Your task to perform on an android device: toggle pop-ups in chrome Image 0: 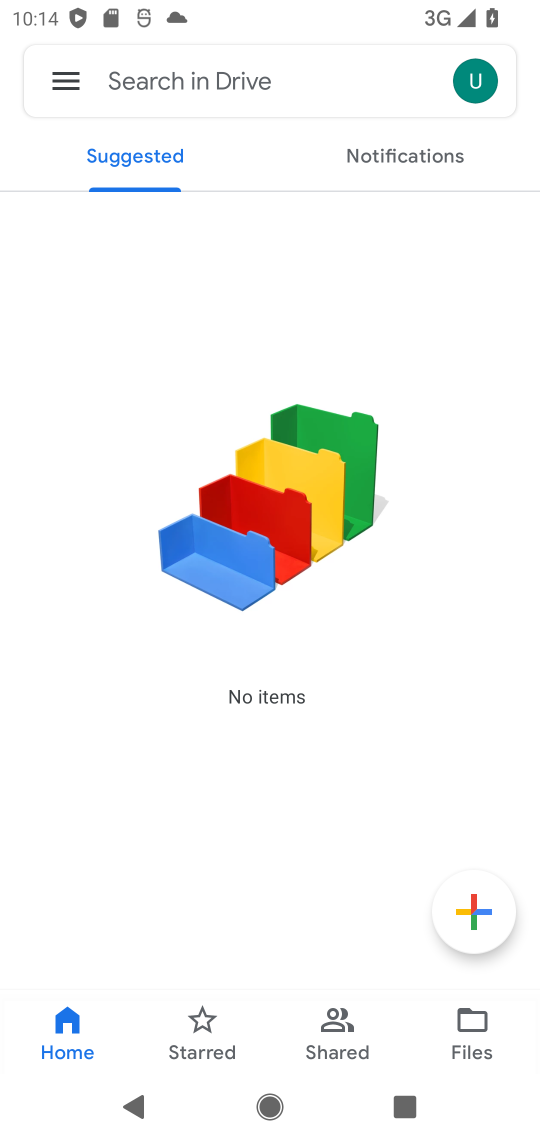
Step 0: press home button
Your task to perform on an android device: toggle pop-ups in chrome Image 1: 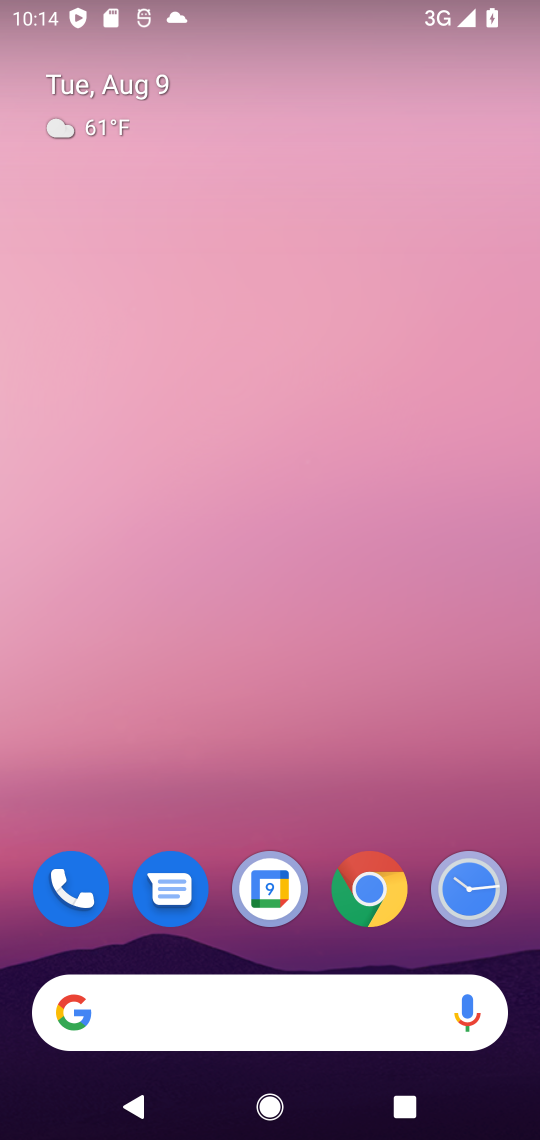
Step 1: drag from (293, 820) to (341, 110)
Your task to perform on an android device: toggle pop-ups in chrome Image 2: 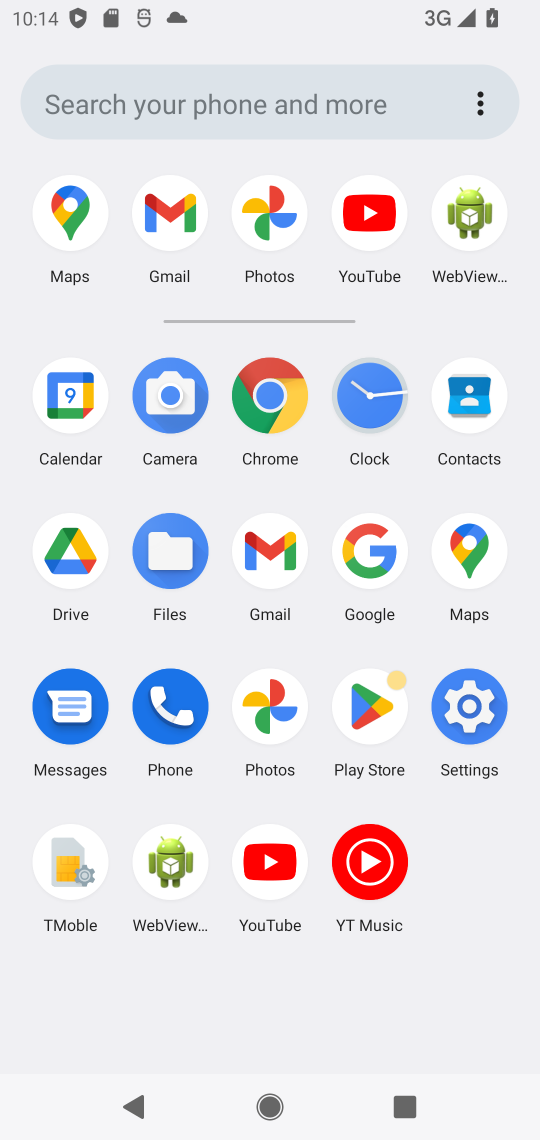
Step 2: click (272, 402)
Your task to perform on an android device: toggle pop-ups in chrome Image 3: 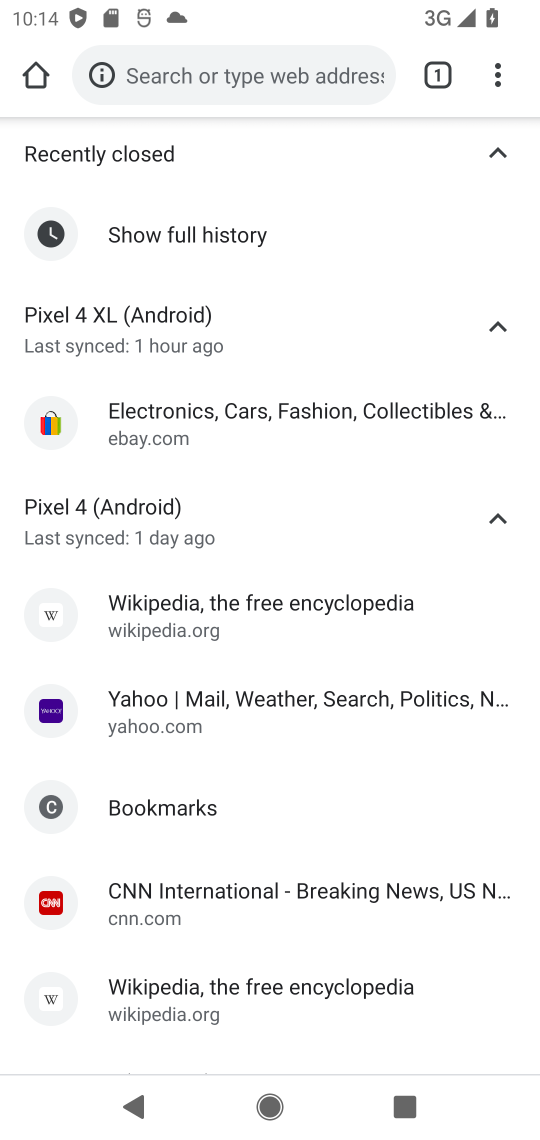
Step 3: drag from (493, 73) to (242, 803)
Your task to perform on an android device: toggle pop-ups in chrome Image 4: 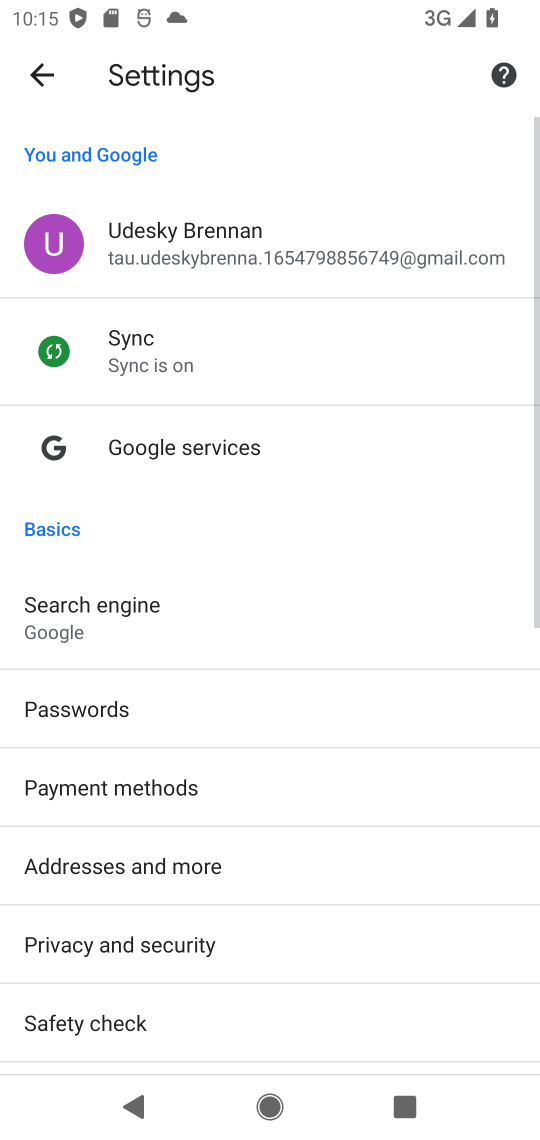
Step 4: drag from (190, 902) to (290, 396)
Your task to perform on an android device: toggle pop-ups in chrome Image 5: 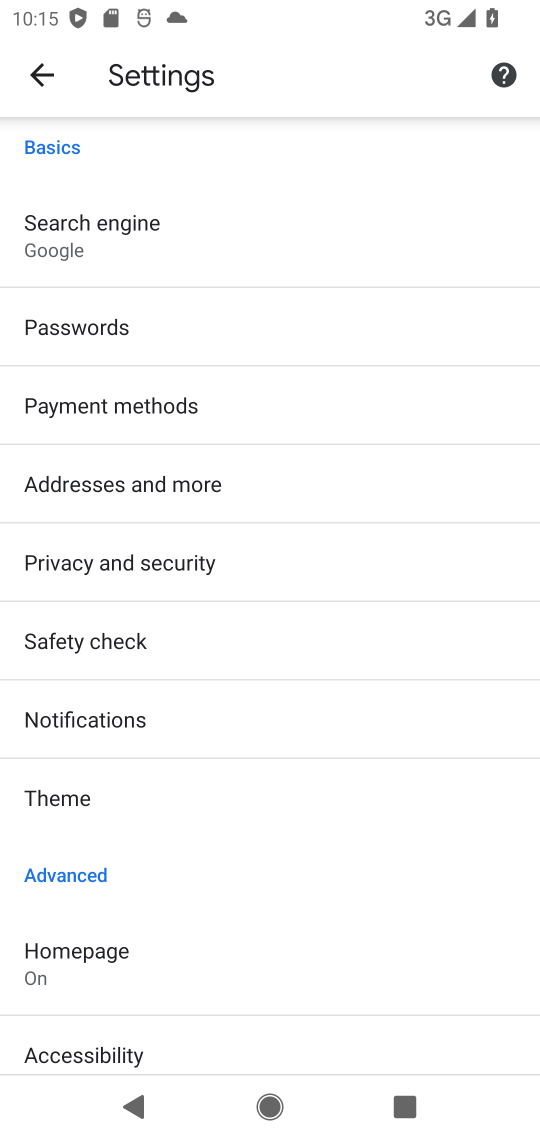
Step 5: drag from (214, 913) to (238, 347)
Your task to perform on an android device: toggle pop-ups in chrome Image 6: 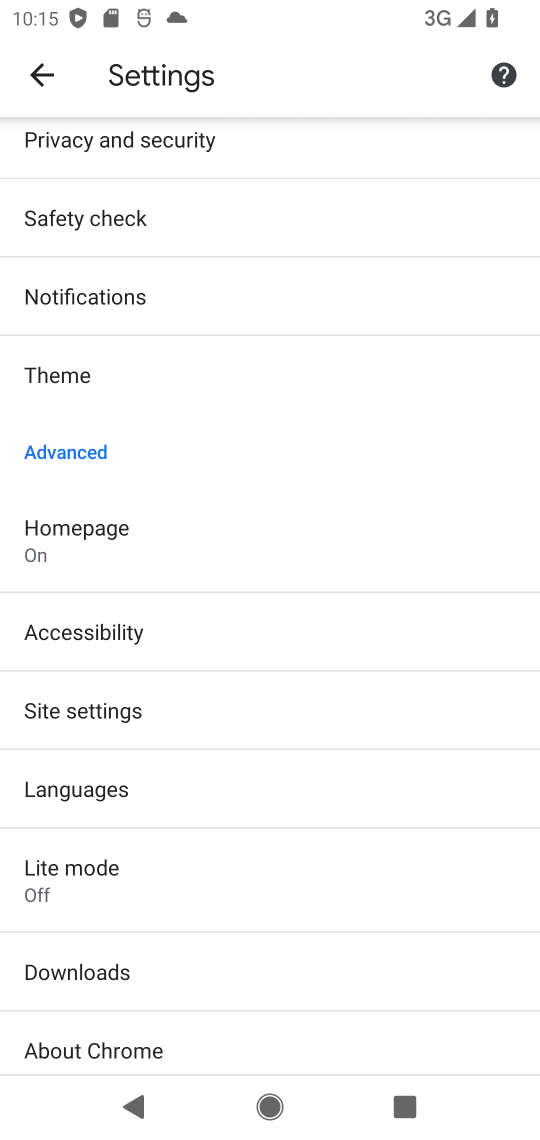
Step 6: click (73, 725)
Your task to perform on an android device: toggle pop-ups in chrome Image 7: 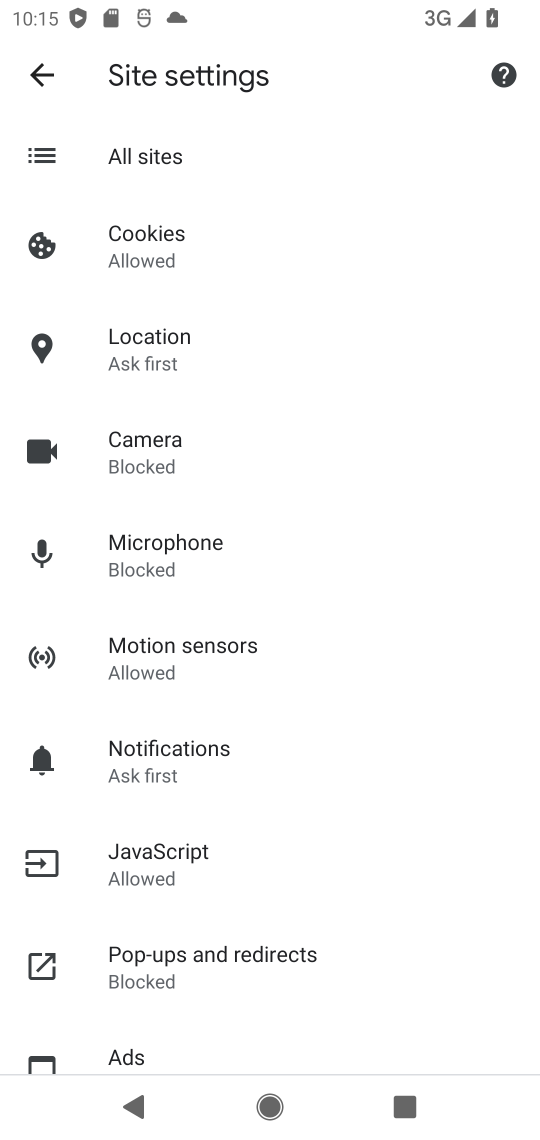
Step 7: click (225, 942)
Your task to perform on an android device: toggle pop-ups in chrome Image 8: 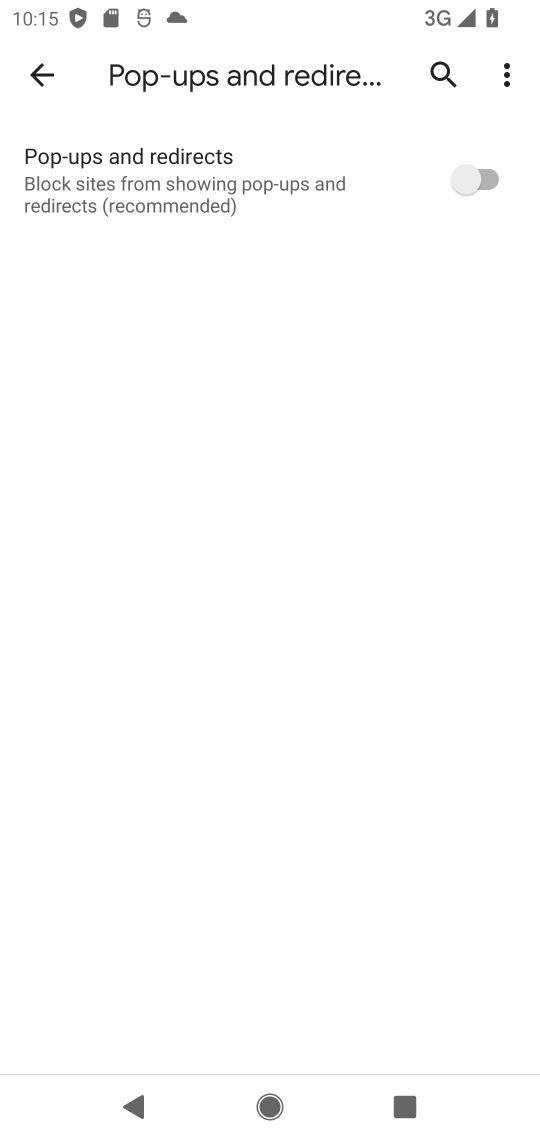
Step 8: click (485, 179)
Your task to perform on an android device: toggle pop-ups in chrome Image 9: 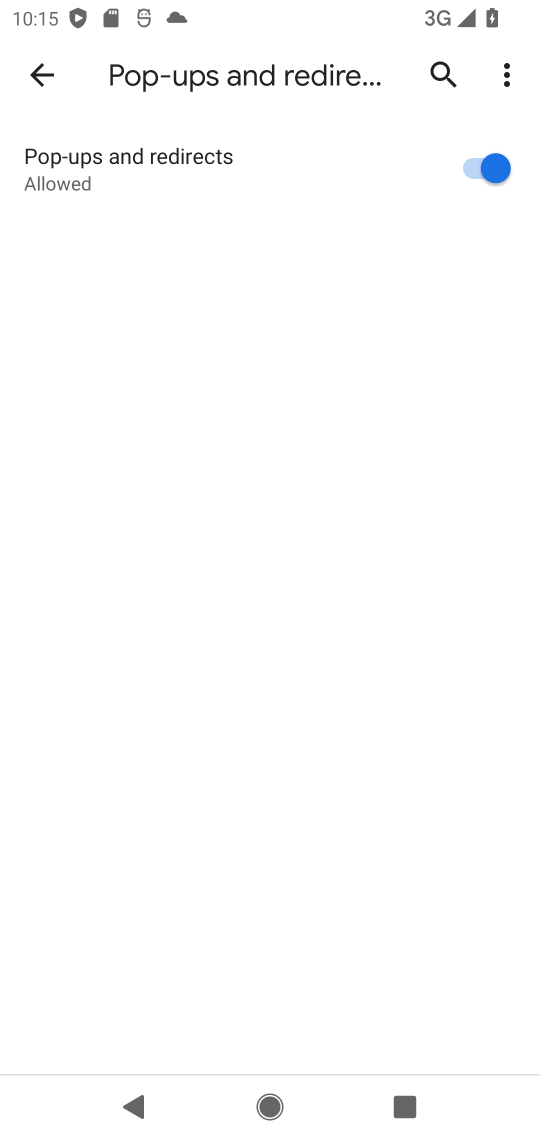
Step 9: task complete